Your task to perform on an android device: Go to calendar. Show me events next week Image 0: 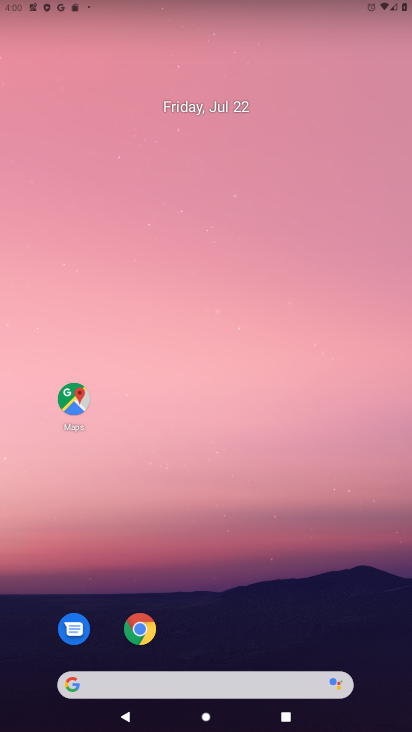
Step 0: press home button
Your task to perform on an android device: Go to calendar. Show me events next week Image 1: 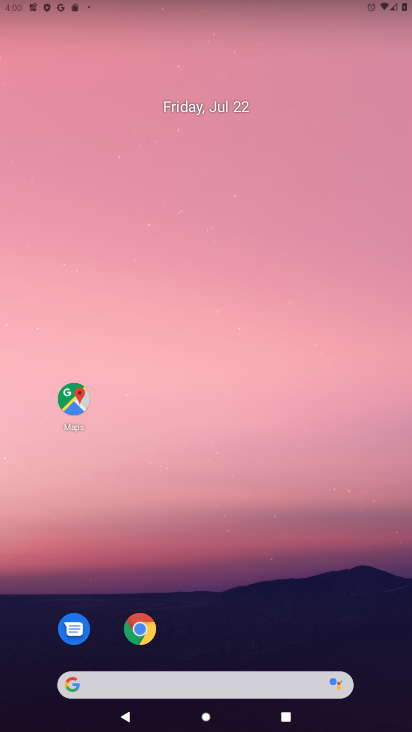
Step 1: drag from (234, 640) to (240, 264)
Your task to perform on an android device: Go to calendar. Show me events next week Image 2: 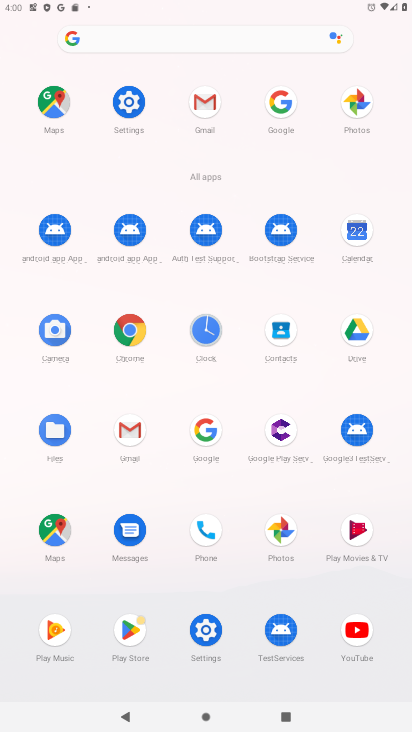
Step 2: click (372, 237)
Your task to perform on an android device: Go to calendar. Show me events next week Image 3: 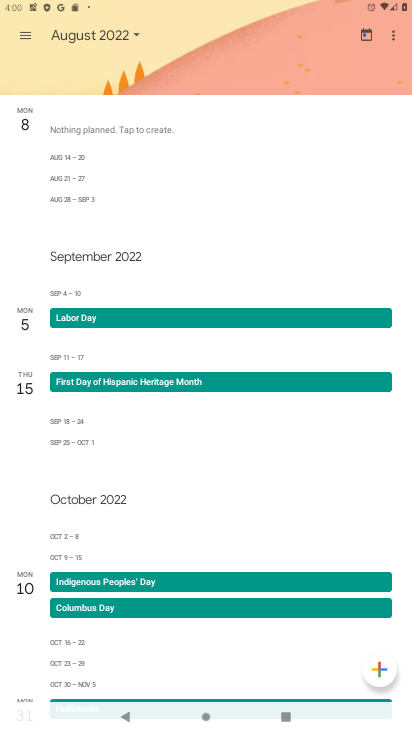
Step 3: click (93, 32)
Your task to perform on an android device: Go to calendar. Show me events next week Image 4: 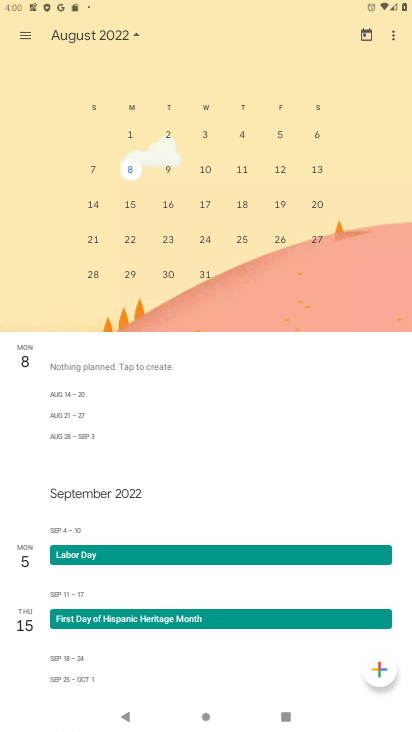
Step 4: drag from (83, 207) to (396, 161)
Your task to perform on an android device: Go to calendar. Show me events next week Image 5: 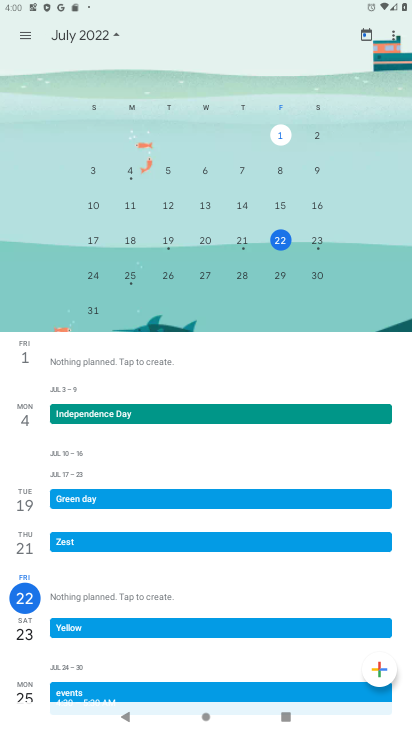
Step 5: click (277, 241)
Your task to perform on an android device: Go to calendar. Show me events next week Image 6: 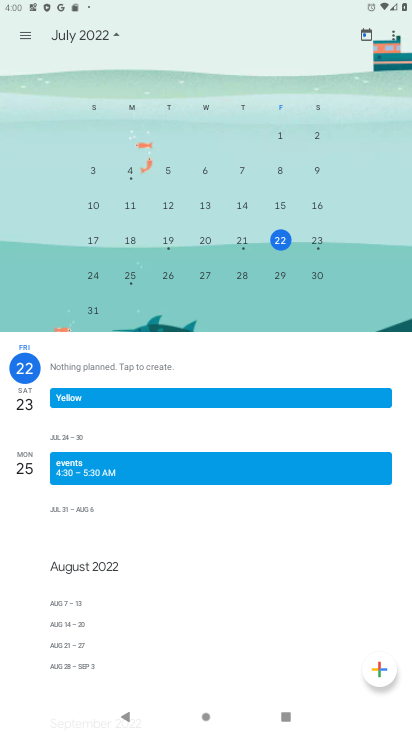
Step 6: task complete